Your task to perform on an android device: turn off javascript in the chrome app Image 0: 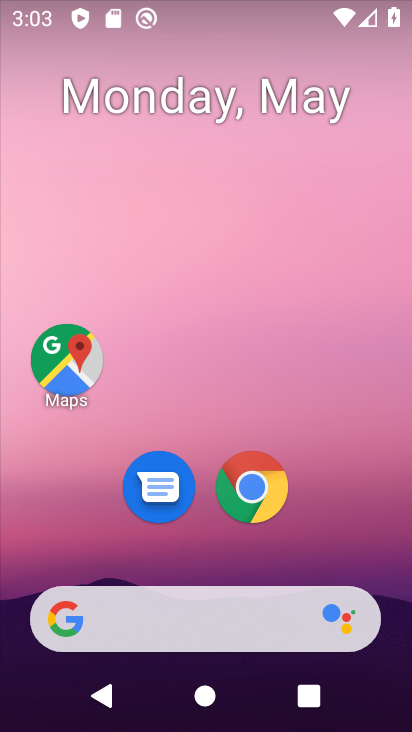
Step 0: click (251, 478)
Your task to perform on an android device: turn off javascript in the chrome app Image 1: 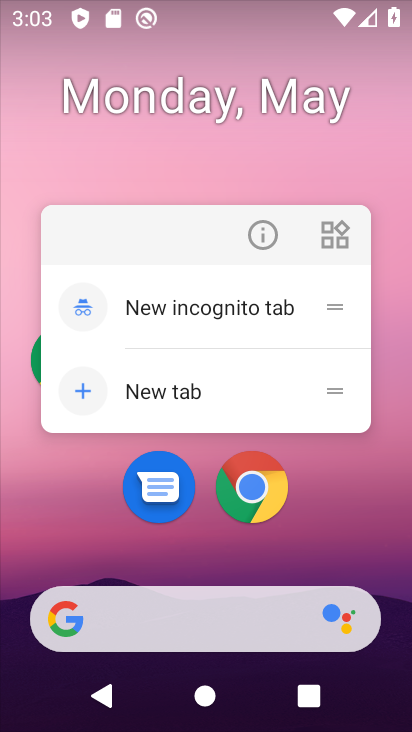
Step 1: click (252, 502)
Your task to perform on an android device: turn off javascript in the chrome app Image 2: 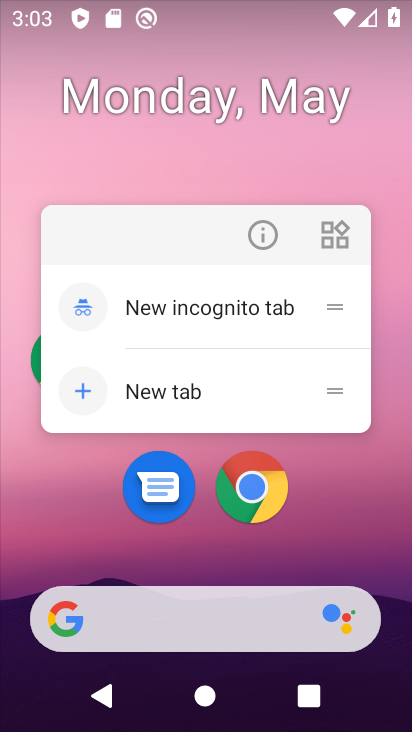
Step 2: click (249, 491)
Your task to perform on an android device: turn off javascript in the chrome app Image 3: 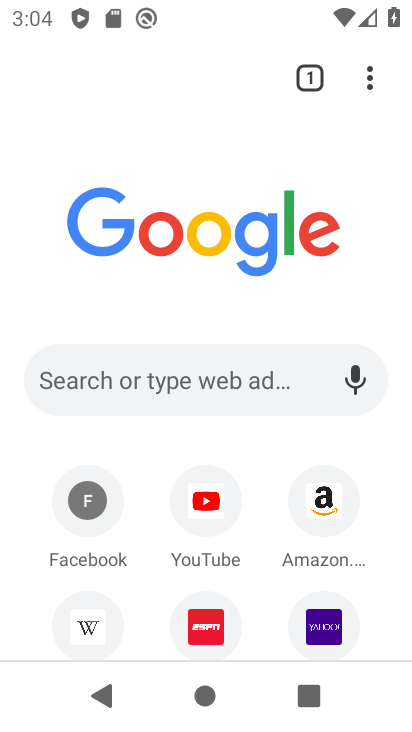
Step 3: click (364, 72)
Your task to perform on an android device: turn off javascript in the chrome app Image 4: 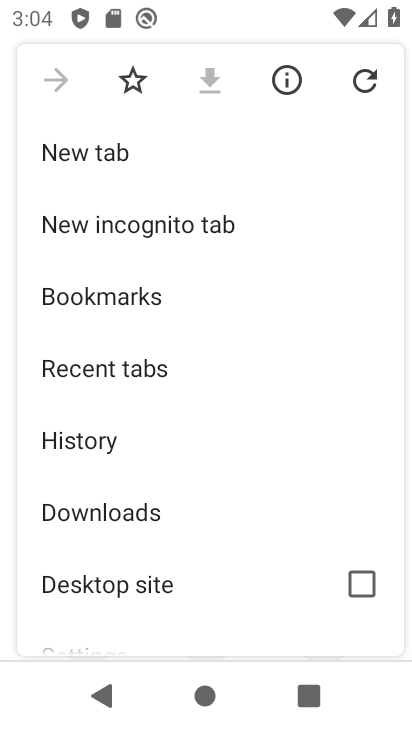
Step 4: drag from (208, 586) to (199, 199)
Your task to perform on an android device: turn off javascript in the chrome app Image 5: 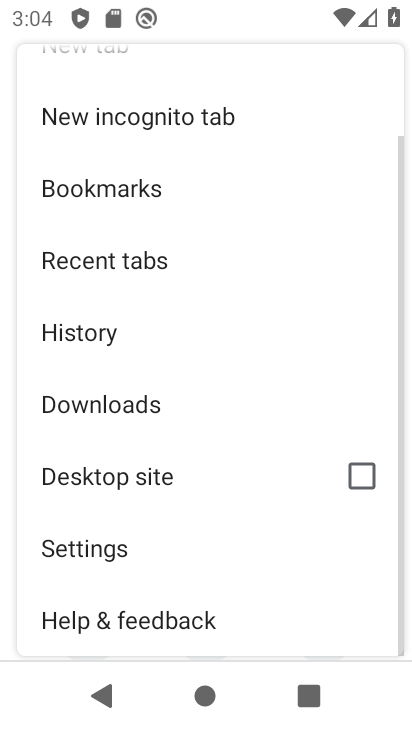
Step 5: click (98, 550)
Your task to perform on an android device: turn off javascript in the chrome app Image 6: 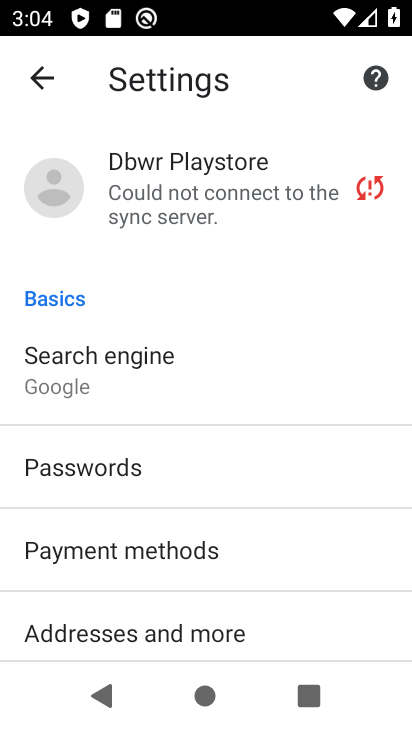
Step 6: drag from (139, 627) to (151, 225)
Your task to perform on an android device: turn off javascript in the chrome app Image 7: 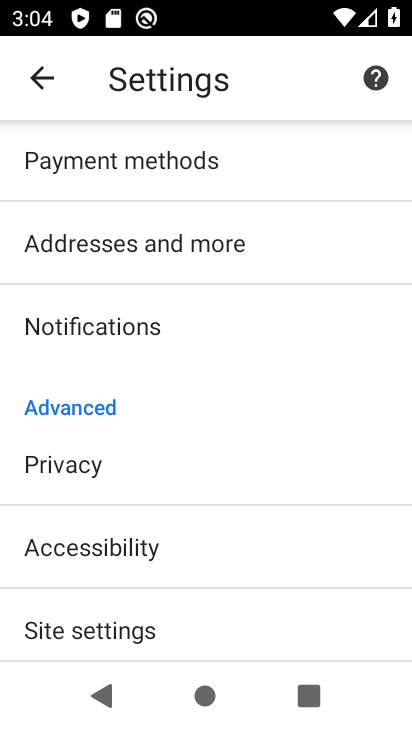
Step 7: click (129, 634)
Your task to perform on an android device: turn off javascript in the chrome app Image 8: 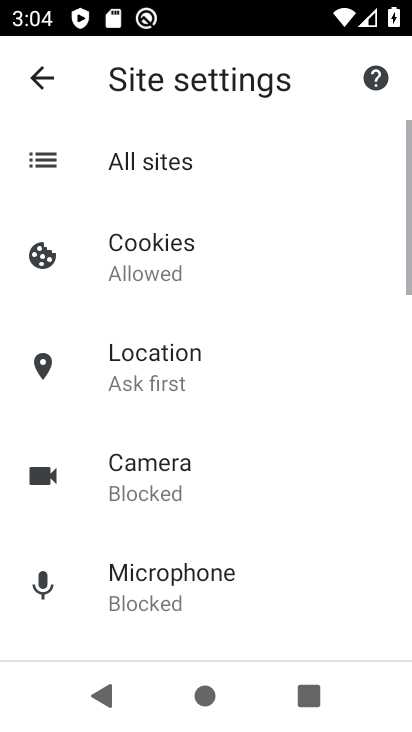
Step 8: drag from (129, 625) to (183, 203)
Your task to perform on an android device: turn off javascript in the chrome app Image 9: 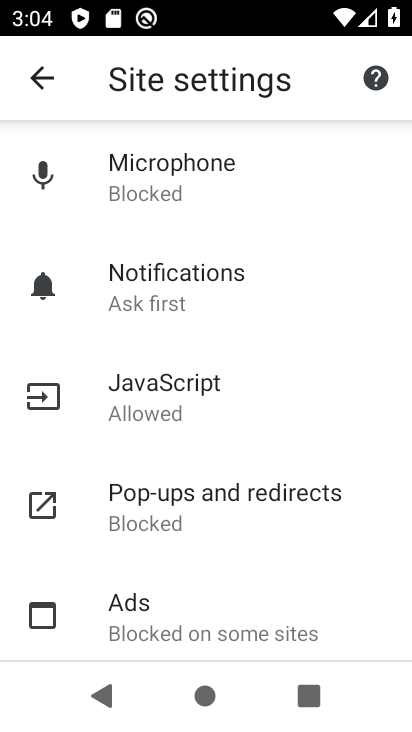
Step 9: click (178, 410)
Your task to perform on an android device: turn off javascript in the chrome app Image 10: 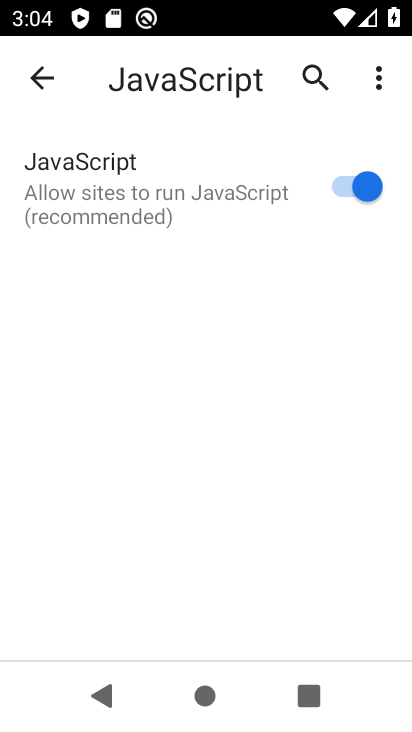
Step 10: click (344, 189)
Your task to perform on an android device: turn off javascript in the chrome app Image 11: 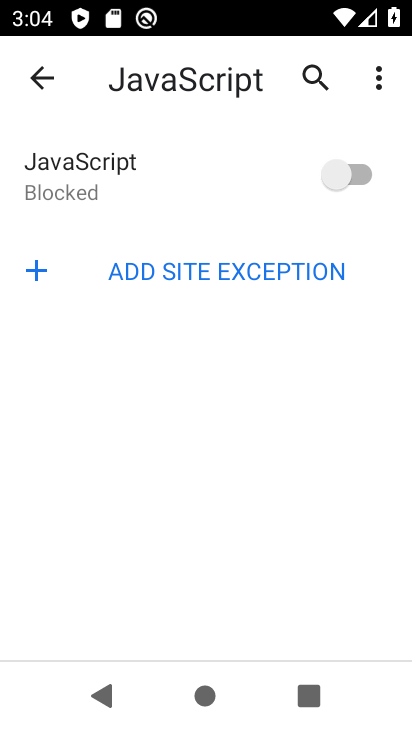
Step 11: task complete